Your task to perform on an android device: Go to privacy settings Image 0: 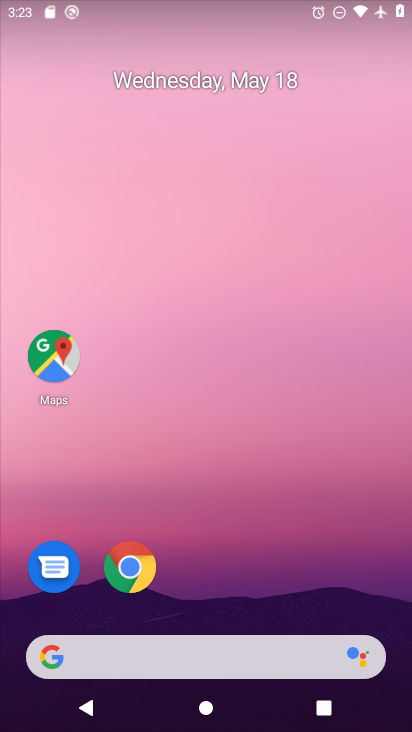
Step 0: drag from (242, 583) to (232, 216)
Your task to perform on an android device: Go to privacy settings Image 1: 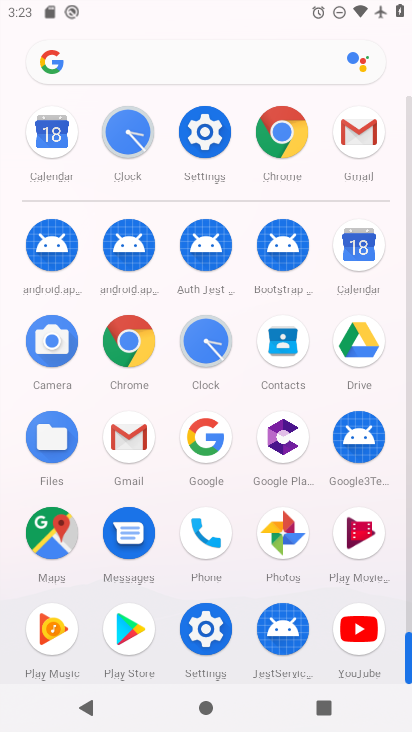
Step 1: click (213, 119)
Your task to perform on an android device: Go to privacy settings Image 2: 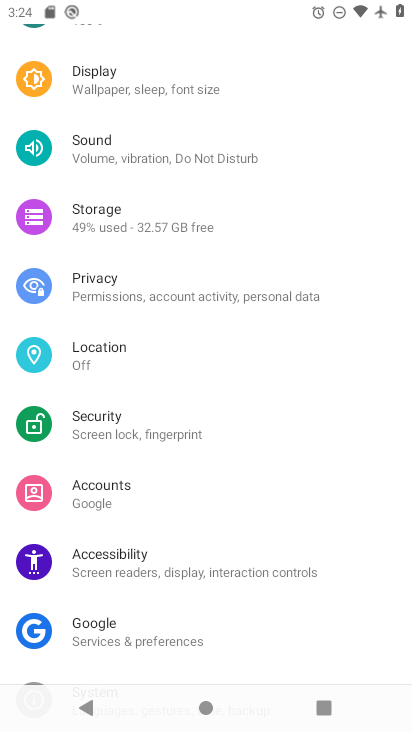
Step 2: click (133, 278)
Your task to perform on an android device: Go to privacy settings Image 3: 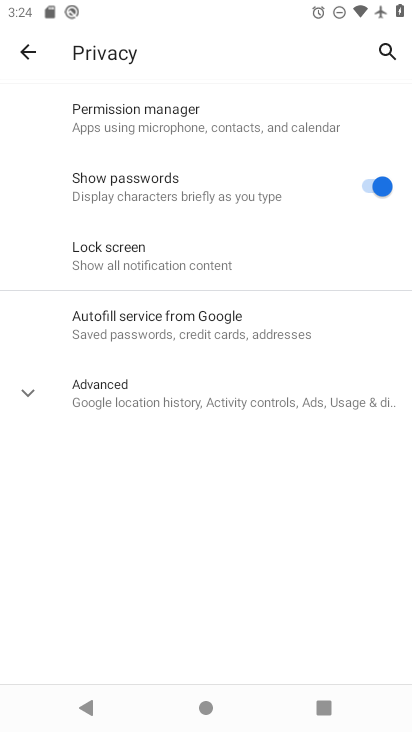
Step 3: task complete